Your task to perform on an android device: Go to accessibility settings Image 0: 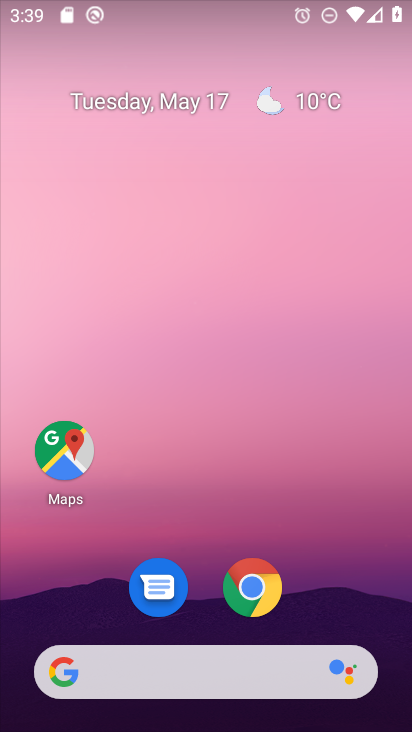
Step 0: drag from (325, 538) to (266, 33)
Your task to perform on an android device: Go to accessibility settings Image 1: 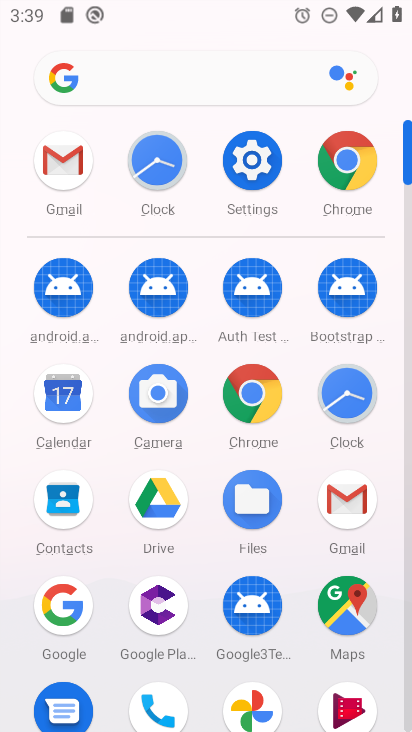
Step 1: drag from (9, 543) to (17, 168)
Your task to perform on an android device: Go to accessibility settings Image 2: 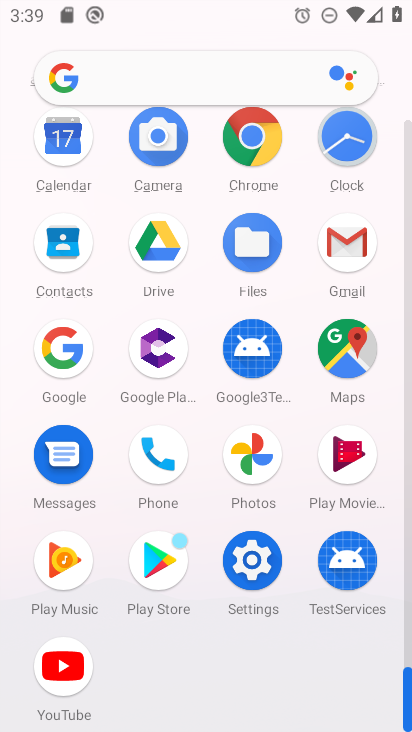
Step 2: drag from (15, 548) to (5, 202)
Your task to perform on an android device: Go to accessibility settings Image 3: 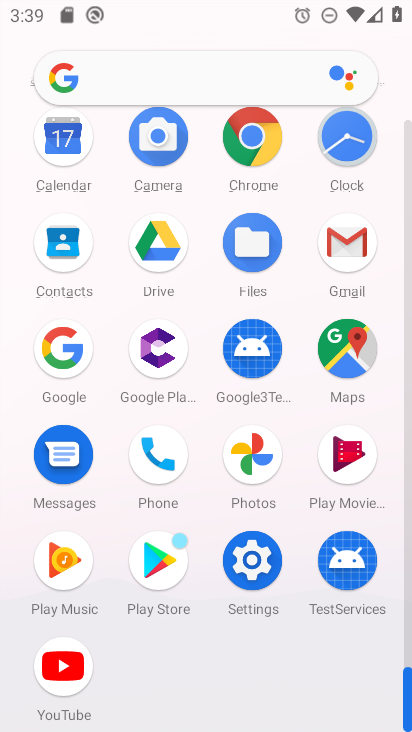
Step 3: click (243, 557)
Your task to perform on an android device: Go to accessibility settings Image 4: 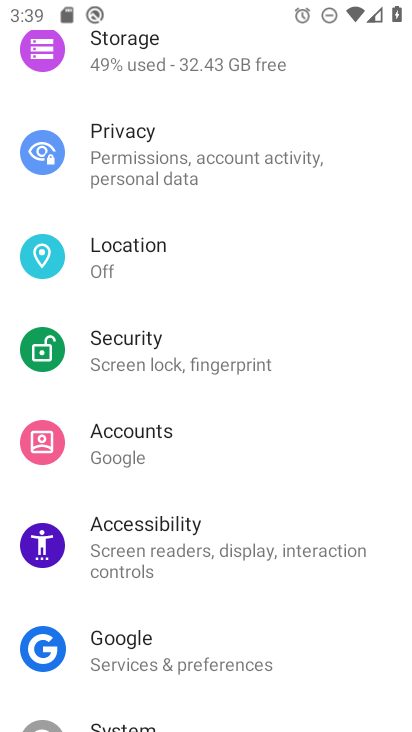
Step 4: click (141, 527)
Your task to perform on an android device: Go to accessibility settings Image 5: 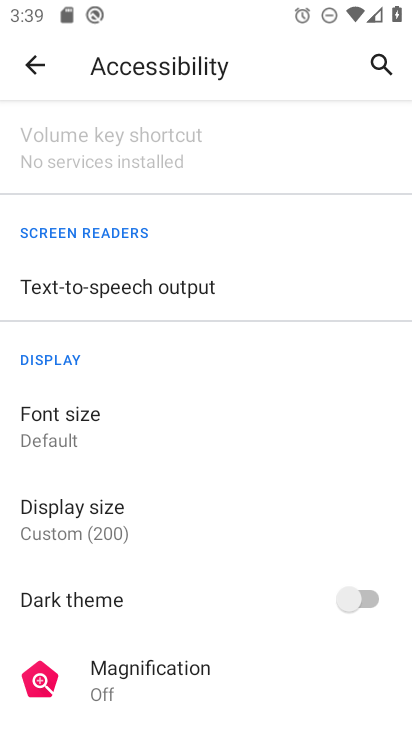
Step 5: task complete